Your task to perform on an android device: snooze an email in the gmail app Image 0: 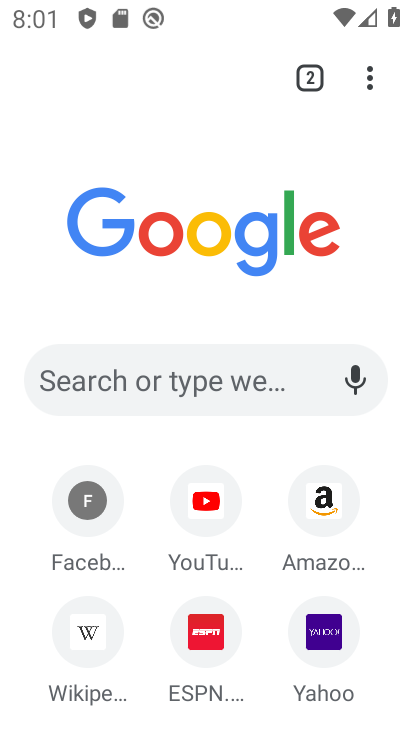
Step 0: press home button
Your task to perform on an android device: snooze an email in the gmail app Image 1: 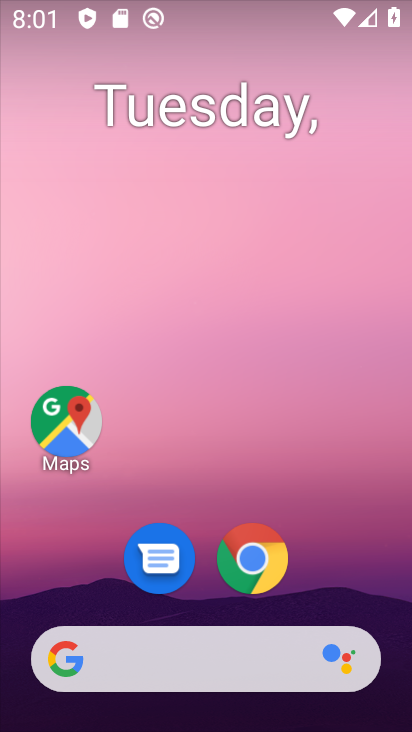
Step 1: drag from (233, 622) to (189, 35)
Your task to perform on an android device: snooze an email in the gmail app Image 2: 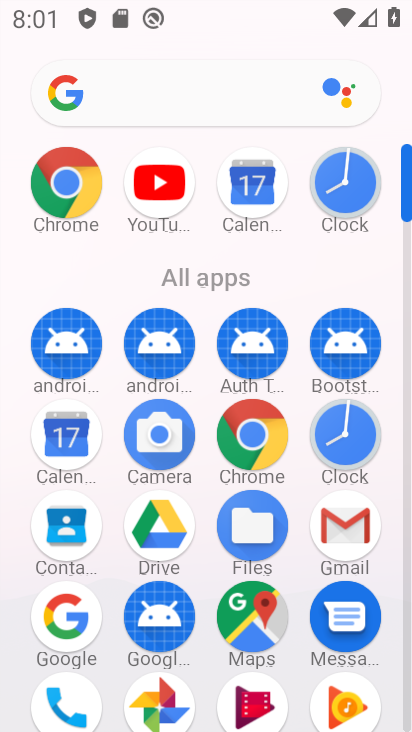
Step 2: click (348, 537)
Your task to perform on an android device: snooze an email in the gmail app Image 3: 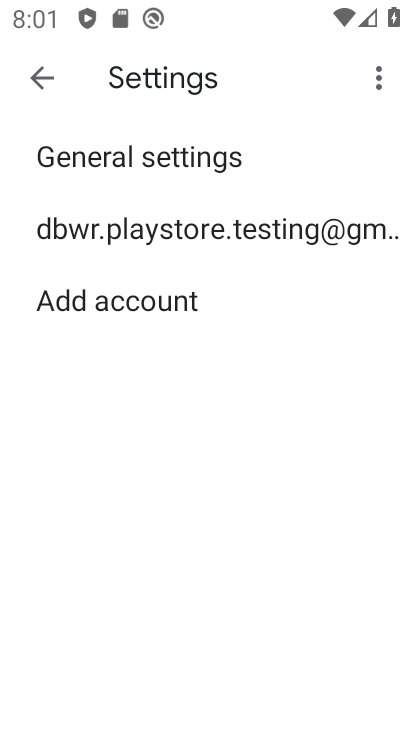
Step 3: click (36, 67)
Your task to perform on an android device: snooze an email in the gmail app Image 4: 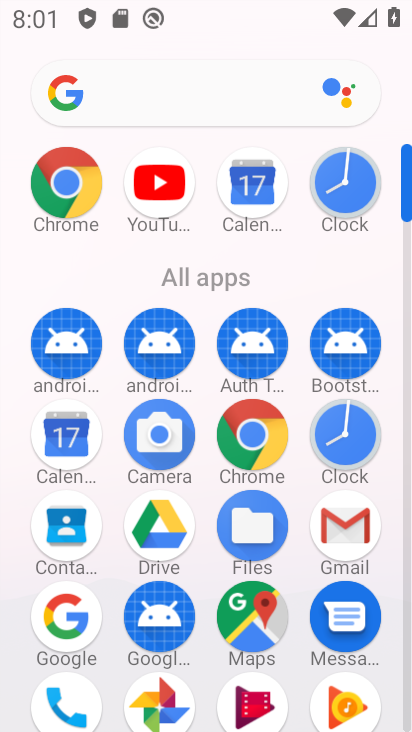
Step 4: click (345, 529)
Your task to perform on an android device: snooze an email in the gmail app Image 5: 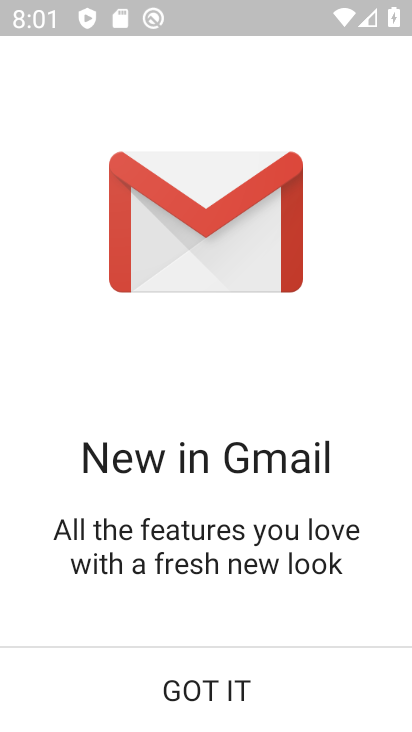
Step 5: click (219, 683)
Your task to perform on an android device: snooze an email in the gmail app Image 6: 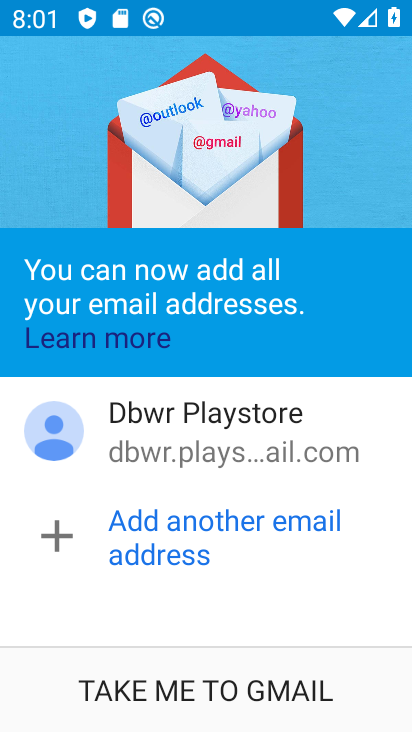
Step 6: click (219, 683)
Your task to perform on an android device: snooze an email in the gmail app Image 7: 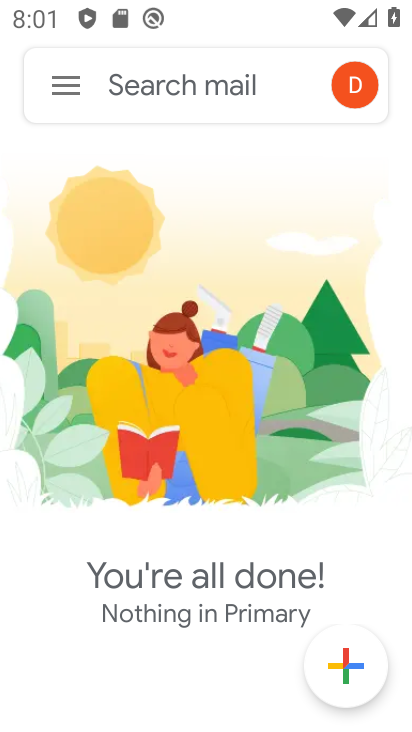
Step 7: task complete